Your task to perform on an android device: Open Google Chrome and open the bookmarks view Image 0: 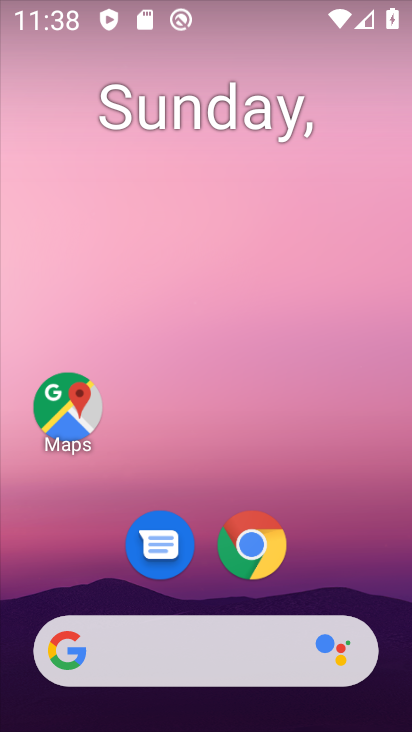
Step 0: drag from (390, 584) to (360, 172)
Your task to perform on an android device: Open Google Chrome and open the bookmarks view Image 1: 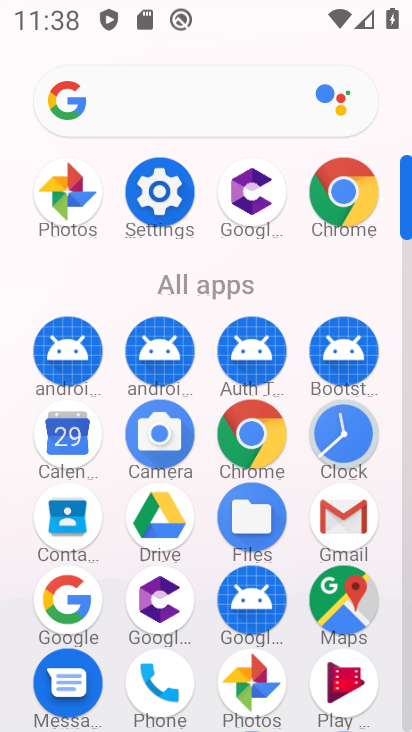
Step 1: click (261, 441)
Your task to perform on an android device: Open Google Chrome and open the bookmarks view Image 2: 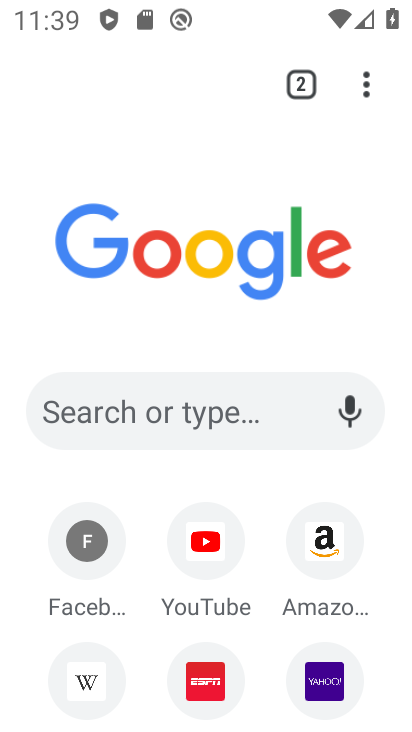
Step 2: click (367, 97)
Your task to perform on an android device: Open Google Chrome and open the bookmarks view Image 3: 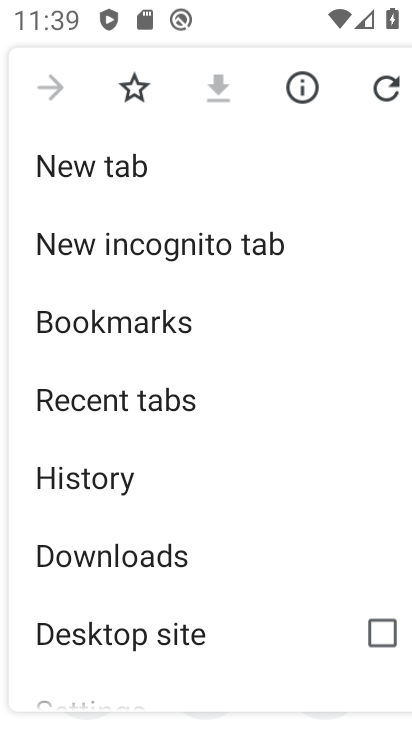
Step 3: click (195, 335)
Your task to perform on an android device: Open Google Chrome and open the bookmarks view Image 4: 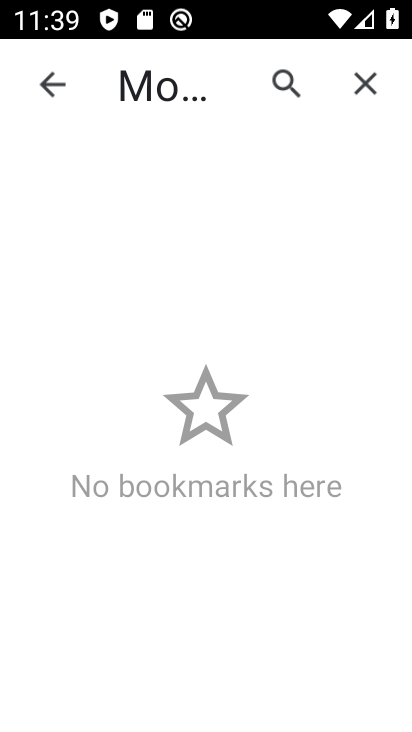
Step 4: task complete